Your task to perform on an android device: delete location history Image 0: 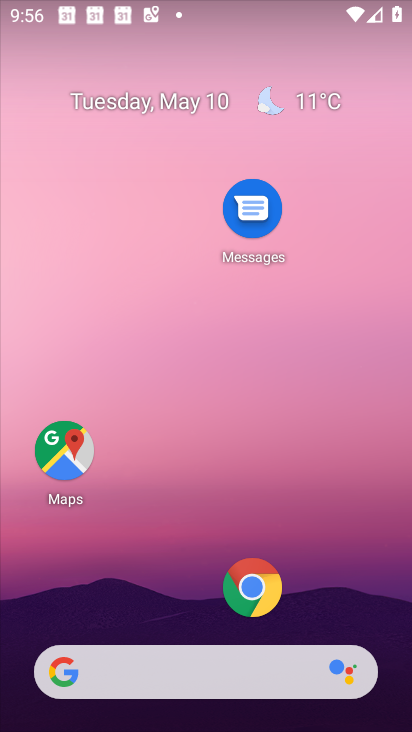
Step 0: drag from (169, 567) to (179, 137)
Your task to perform on an android device: delete location history Image 1: 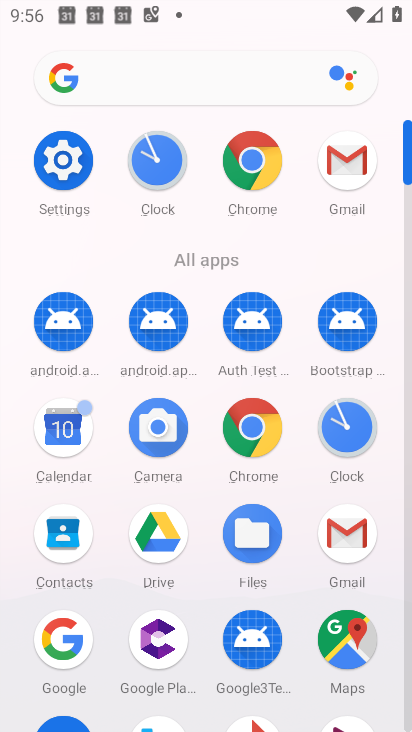
Step 1: click (360, 642)
Your task to perform on an android device: delete location history Image 2: 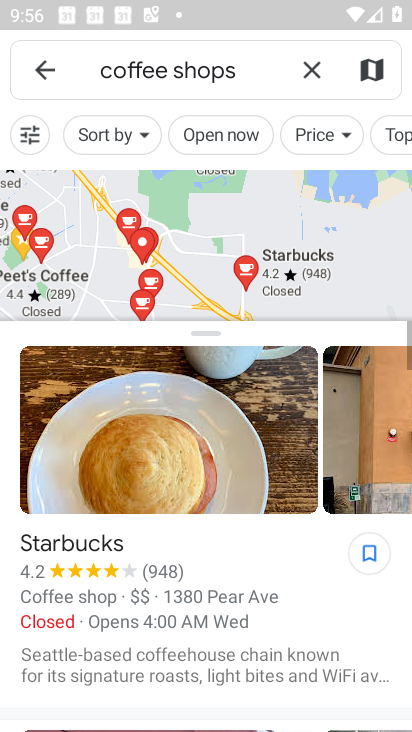
Step 2: click (37, 60)
Your task to perform on an android device: delete location history Image 3: 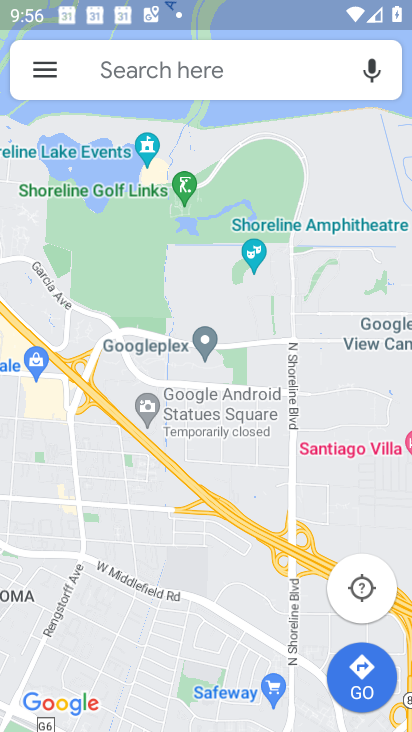
Step 3: click (26, 69)
Your task to perform on an android device: delete location history Image 4: 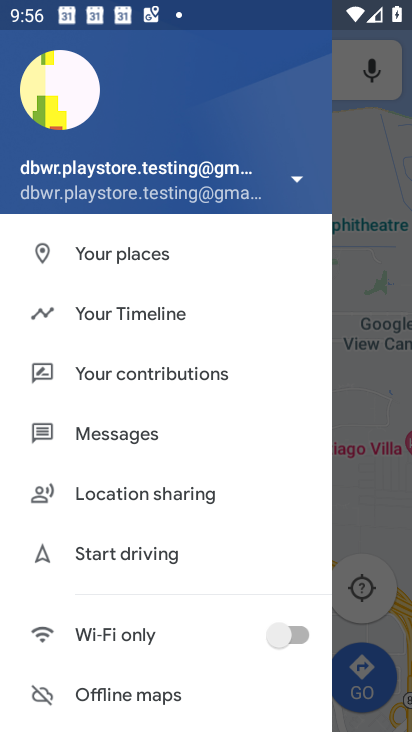
Step 4: click (167, 297)
Your task to perform on an android device: delete location history Image 5: 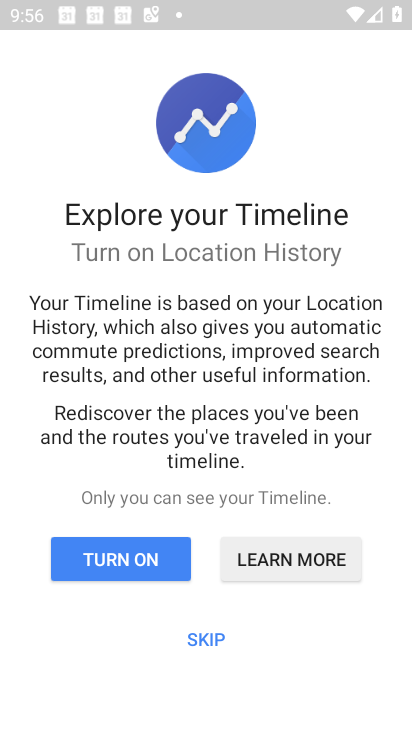
Step 5: click (198, 634)
Your task to perform on an android device: delete location history Image 6: 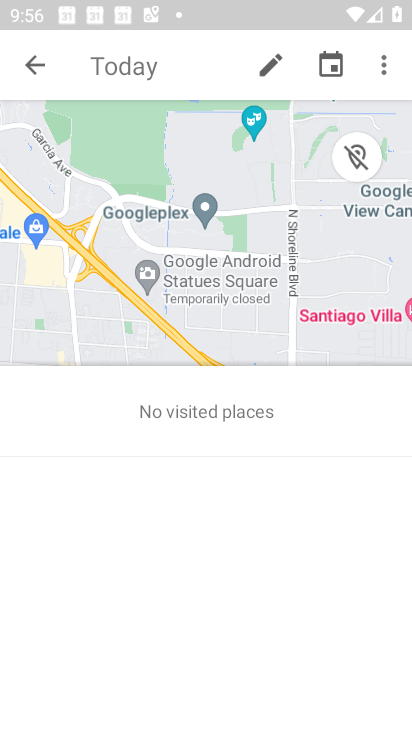
Step 6: click (383, 73)
Your task to perform on an android device: delete location history Image 7: 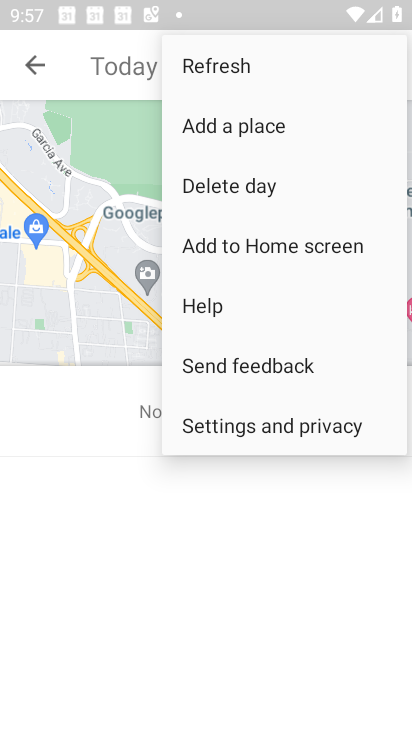
Step 7: click (267, 433)
Your task to perform on an android device: delete location history Image 8: 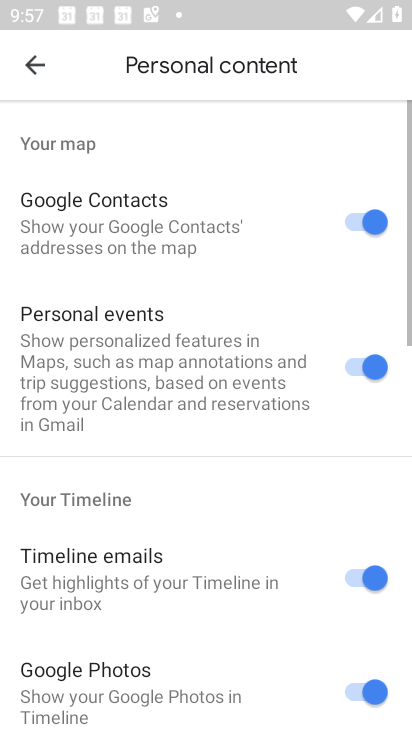
Step 8: drag from (213, 532) to (311, 163)
Your task to perform on an android device: delete location history Image 9: 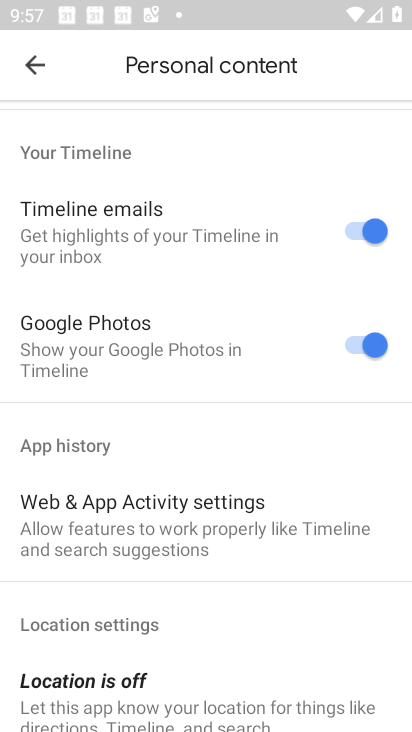
Step 9: drag from (228, 567) to (362, 116)
Your task to perform on an android device: delete location history Image 10: 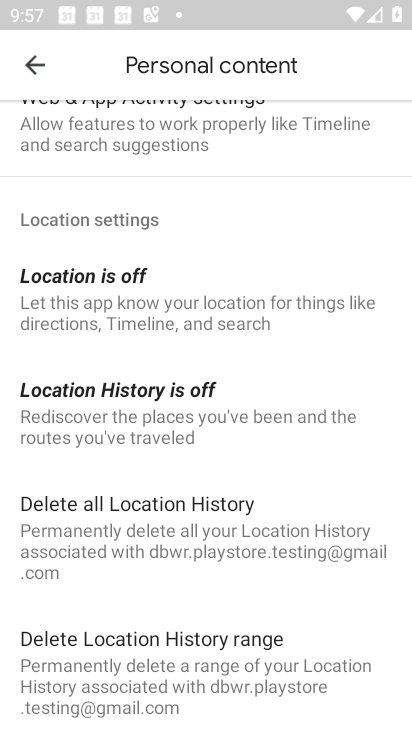
Step 10: click (232, 541)
Your task to perform on an android device: delete location history Image 11: 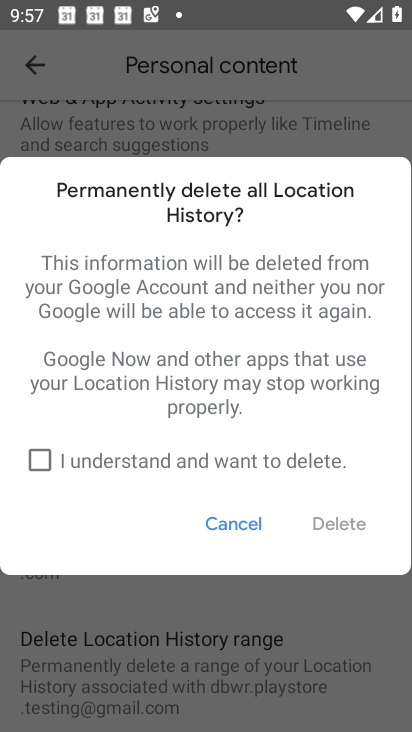
Step 11: click (158, 456)
Your task to perform on an android device: delete location history Image 12: 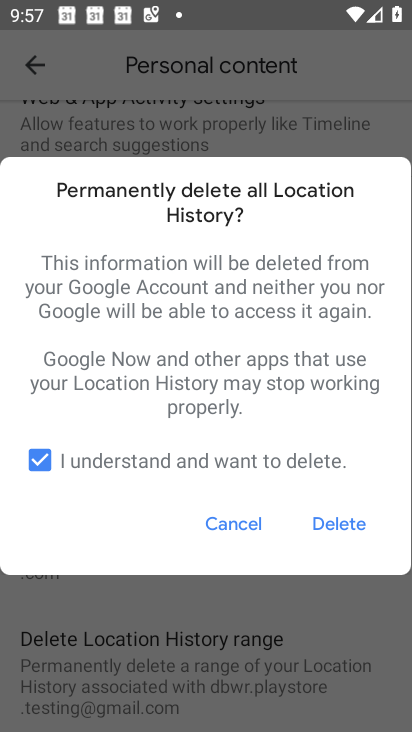
Step 12: click (347, 522)
Your task to perform on an android device: delete location history Image 13: 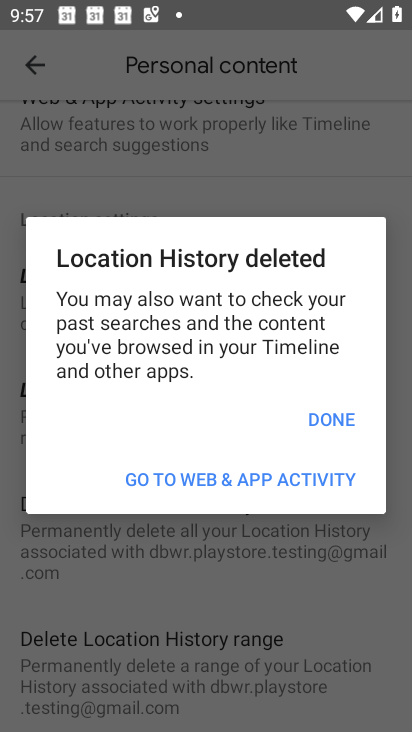
Step 13: click (321, 428)
Your task to perform on an android device: delete location history Image 14: 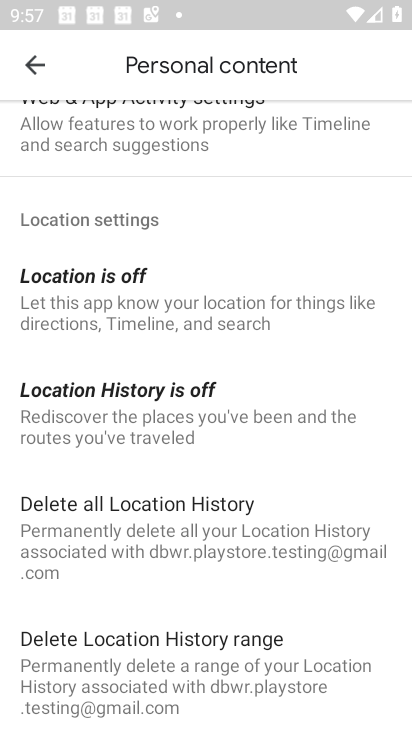
Step 14: task complete